Your task to perform on an android device: open a bookmark in the chrome app Image 0: 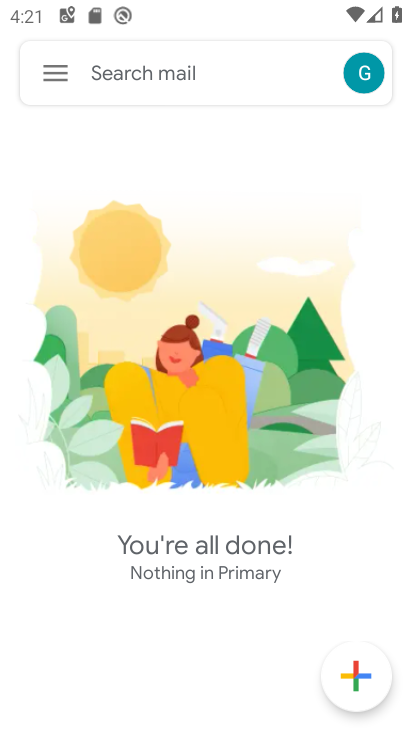
Step 0: press home button
Your task to perform on an android device: open a bookmark in the chrome app Image 1: 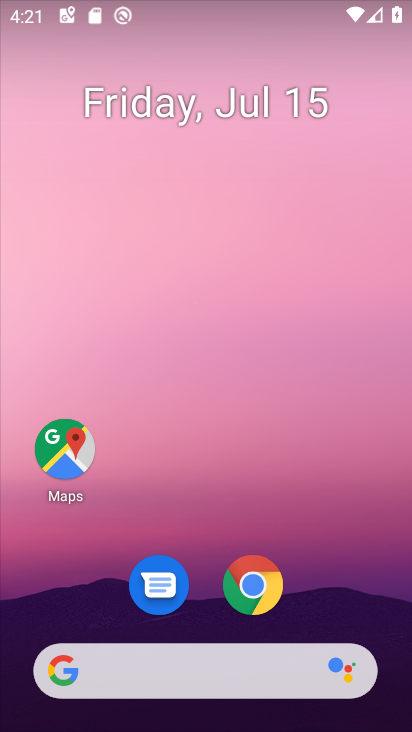
Step 1: click (268, 582)
Your task to perform on an android device: open a bookmark in the chrome app Image 2: 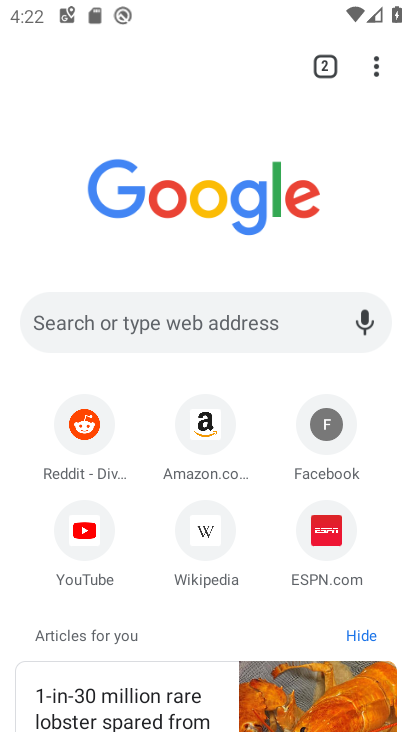
Step 2: click (377, 65)
Your task to perform on an android device: open a bookmark in the chrome app Image 3: 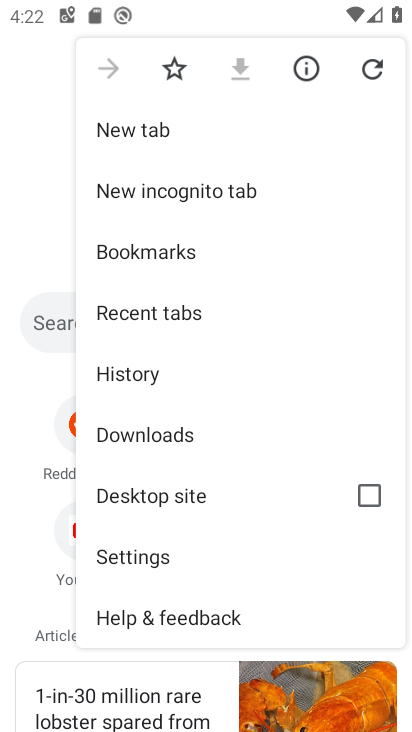
Step 3: click (182, 249)
Your task to perform on an android device: open a bookmark in the chrome app Image 4: 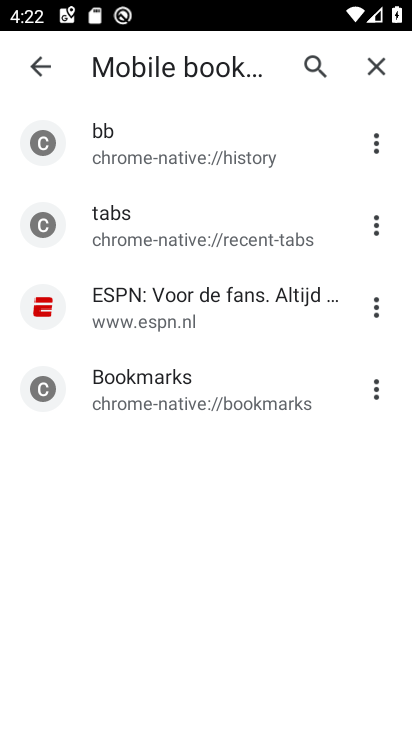
Step 4: task complete